Your task to perform on an android device: check android version Image 0: 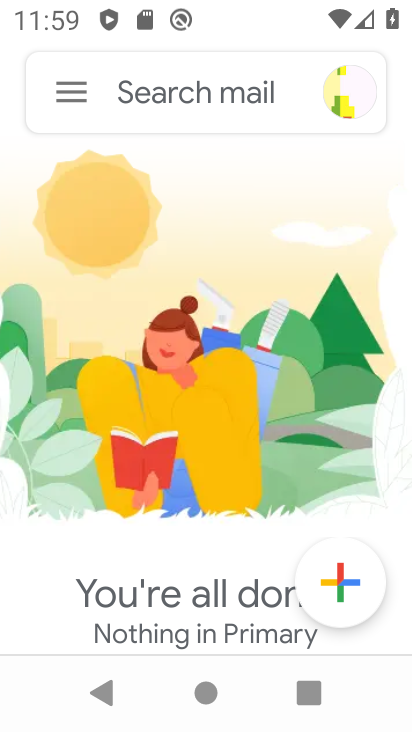
Step 0: press home button
Your task to perform on an android device: check android version Image 1: 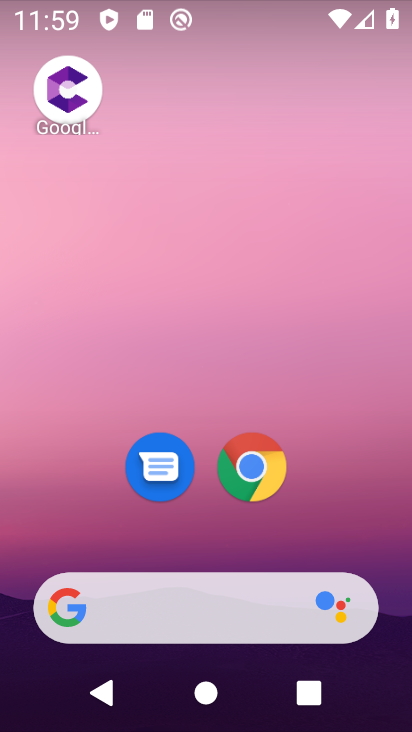
Step 1: drag from (364, 527) to (327, 91)
Your task to perform on an android device: check android version Image 2: 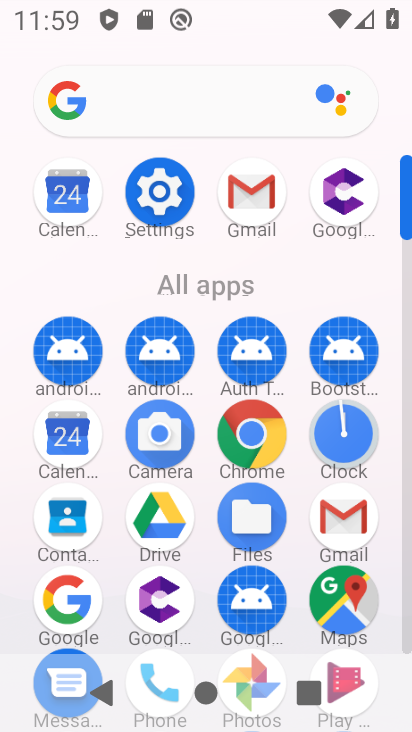
Step 2: click (405, 643)
Your task to perform on an android device: check android version Image 3: 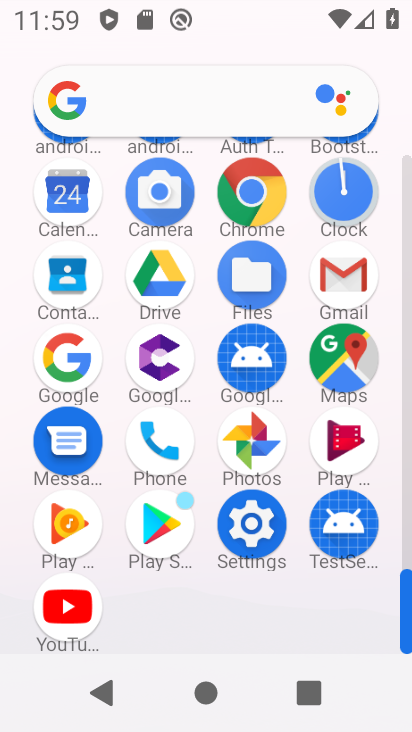
Step 3: click (245, 527)
Your task to perform on an android device: check android version Image 4: 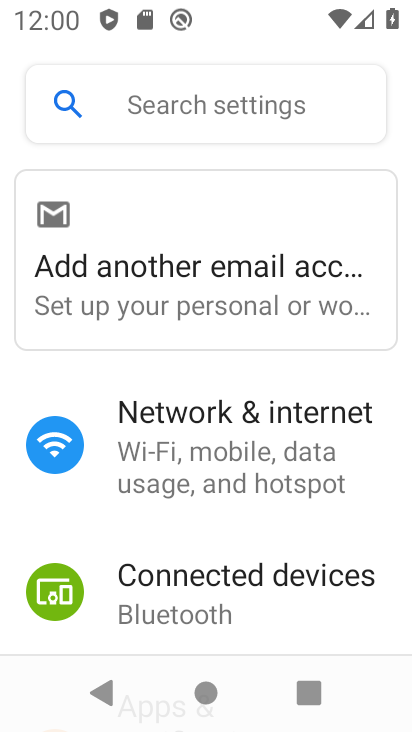
Step 4: drag from (269, 526) to (251, 191)
Your task to perform on an android device: check android version Image 5: 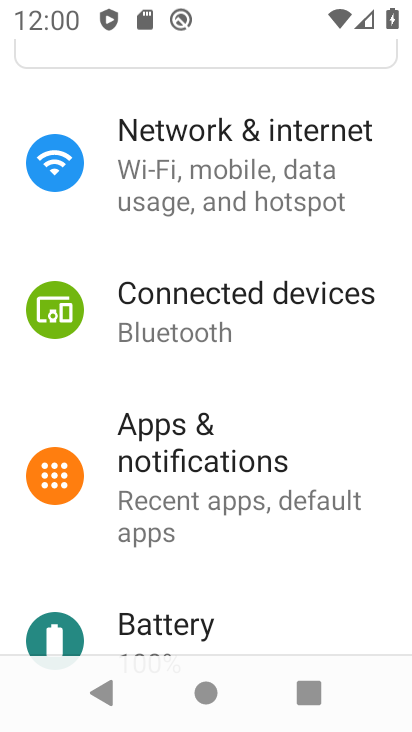
Step 5: drag from (262, 569) to (299, 202)
Your task to perform on an android device: check android version Image 6: 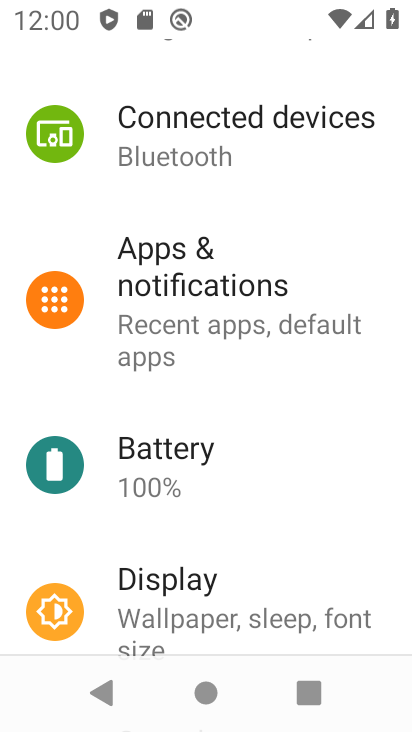
Step 6: drag from (345, 575) to (349, 209)
Your task to perform on an android device: check android version Image 7: 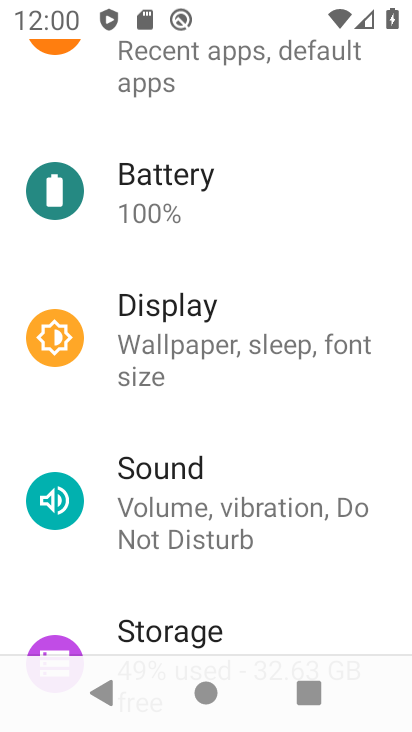
Step 7: drag from (369, 556) to (374, 190)
Your task to perform on an android device: check android version Image 8: 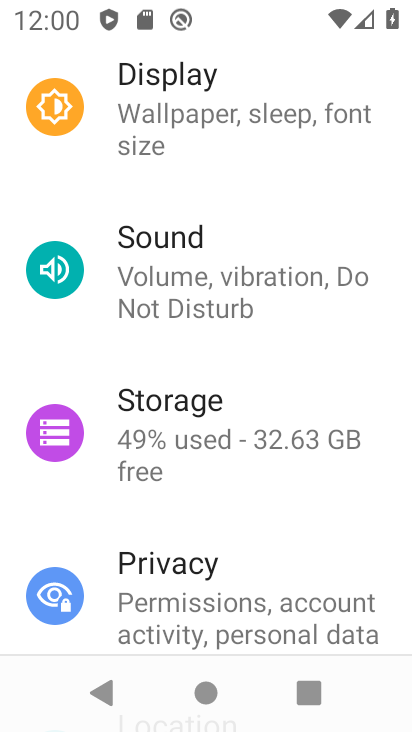
Step 8: drag from (330, 582) to (321, 148)
Your task to perform on an android device: check android version Image 9: 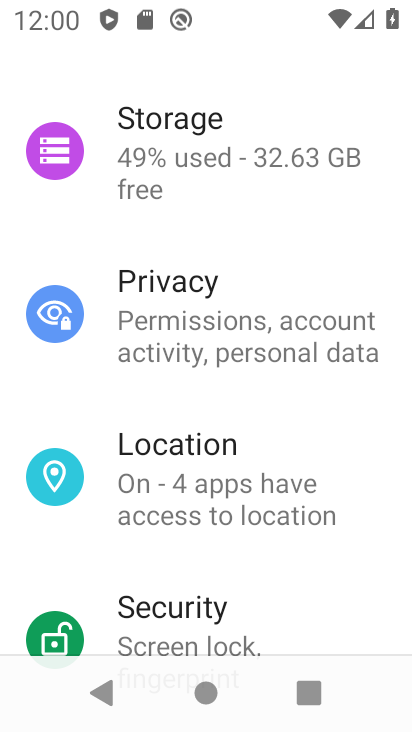
Step 9: drag from (317, 538) to (351, 98)
Your task to perform on an android device: check android version Image 10: 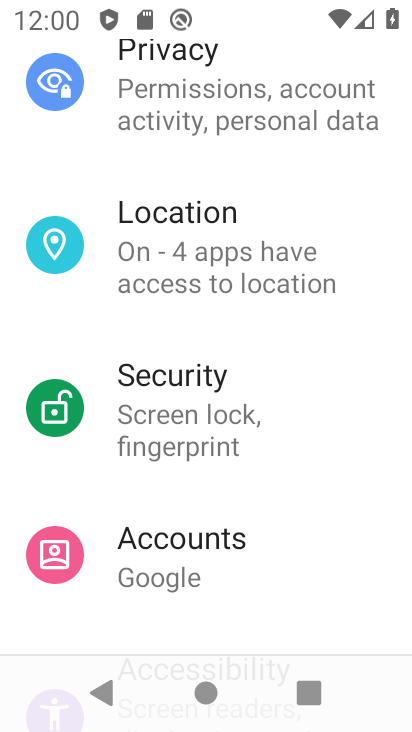
Step 10: drag from (303, 601) to (337, 169)
Your task to perform on an android device: check android version Image 11: 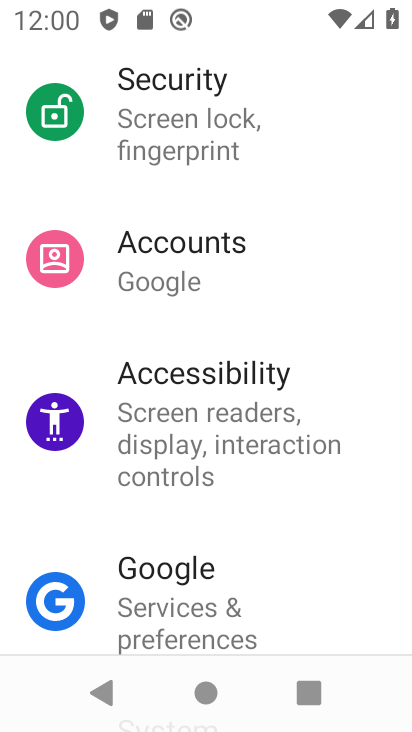
Step 11: drag from (335, 565) to (336, 163)
Your task to perform on an android device: check android version Image 12: 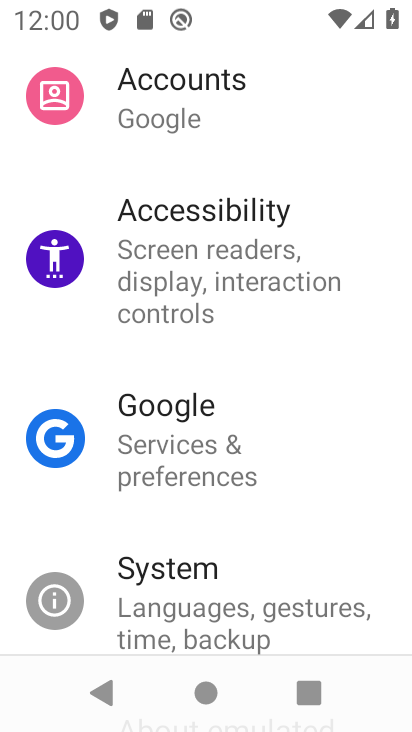
Step 12: drag from (332, 566) to (301, 130)
Your task to perform on an android device: check android version Image 13: 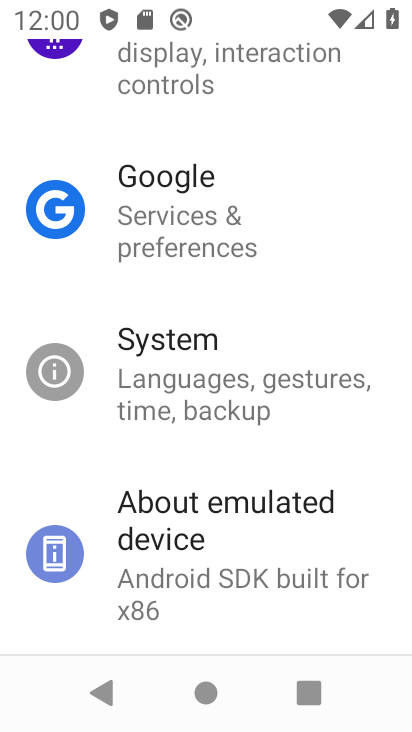
Step 13: click (168, 552)
Your task to perform on an android device: check android version Image 14: 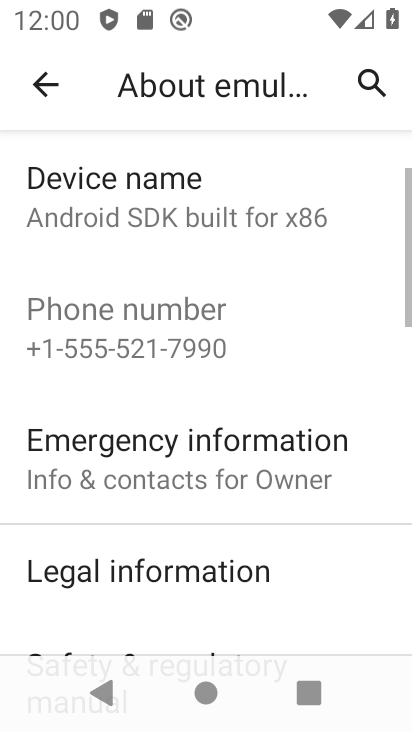
Step 14: drag from (311, 582) to (317, 242)
Your task to perform on an android device: check android version Image 15: 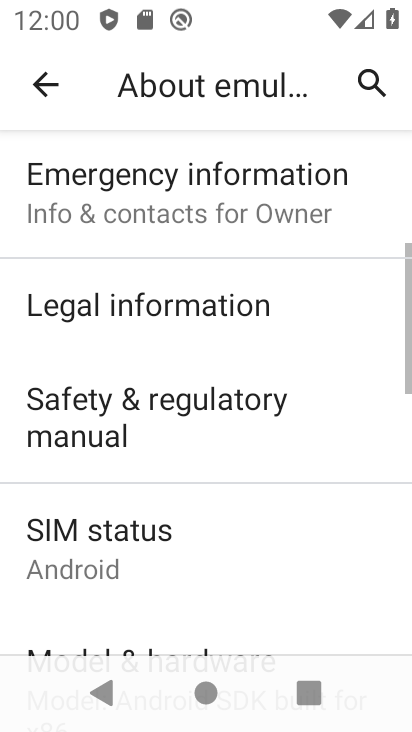
Step 15: drag from (290, 587) to (349, 77)
Your task to perform on an android device: check android version Image 16: 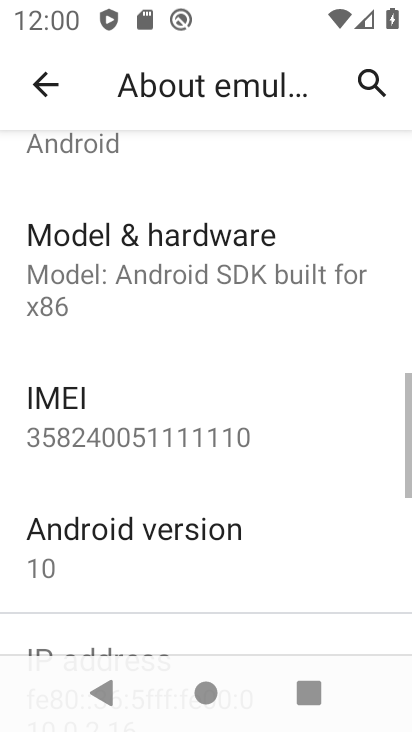
Step 16: drag from (269, 578) to (329, 209)
Your task to perform on an android device: check android version Image 17: 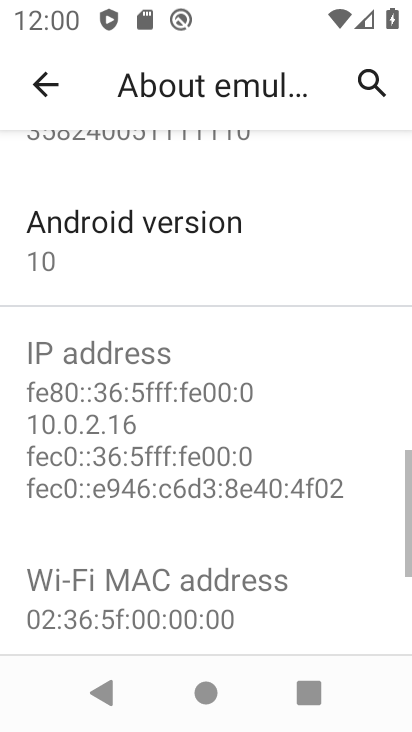
Step 17: click (79, 232)
Your task to perform on an android device: check android version Image 18: 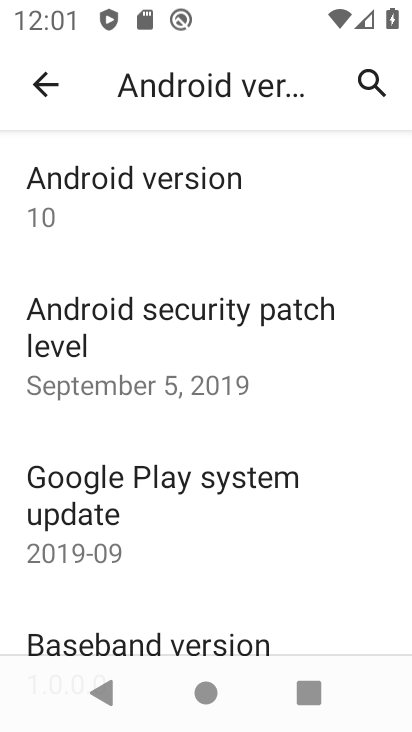
Step 18: task complete